Your task to perform on an android device: Open Google Chrome and open the bookmarks view Image 0: 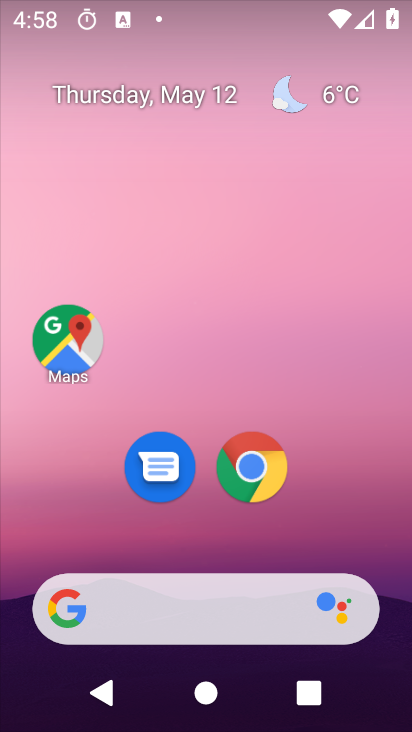
Step 0: drag from (242, 585) to (222, 3)
Your task to perform on an android device: Open Google Chrome and open the bookmarks view Image 1: 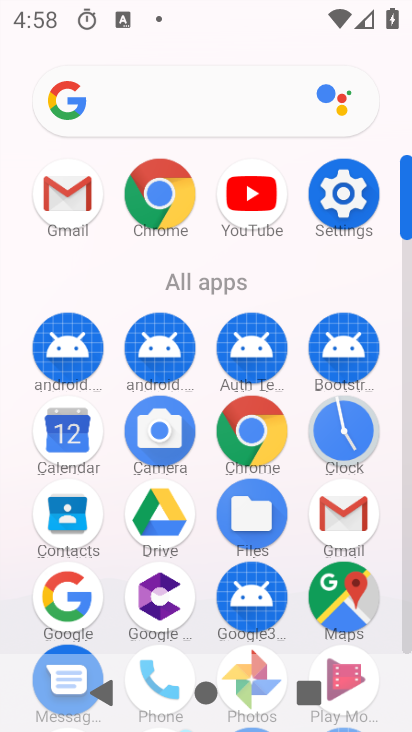
Step 1: click (258, 429)
Your task to perform on an android device: Open Google Chrome and open the bookmarks view Image 2: 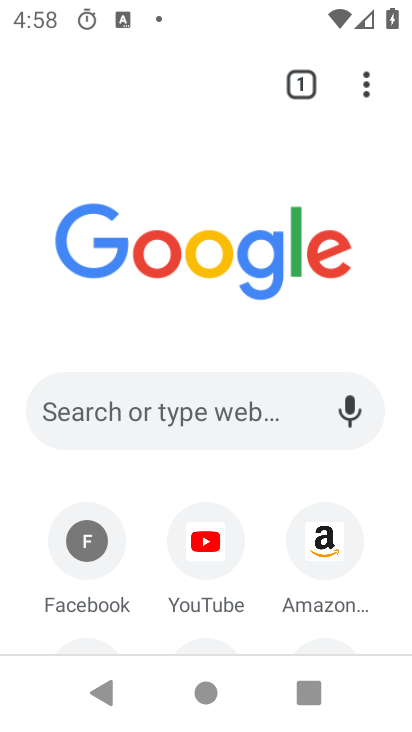
Step 2: task complete